Your task to perform on an android device: add a contact Image 0: 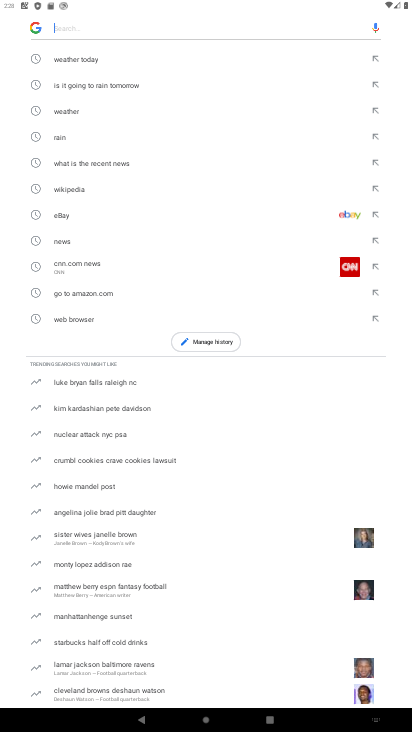
Step 0: press back button
Your task to perform on an android device: add a contact Image 1: 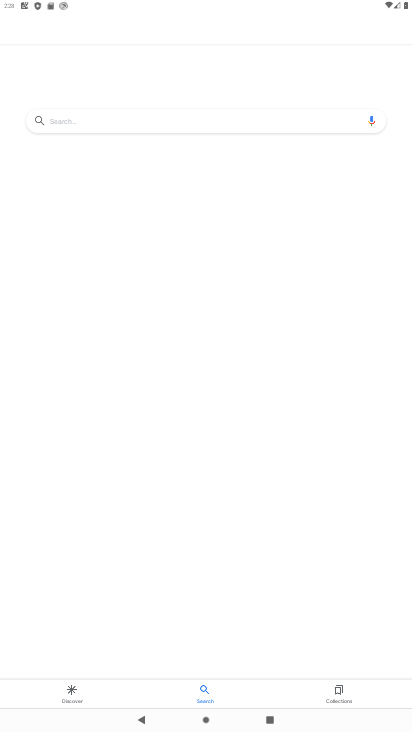
Step 1: press back button
Your task to perform on an android device: add a contact Image 2: 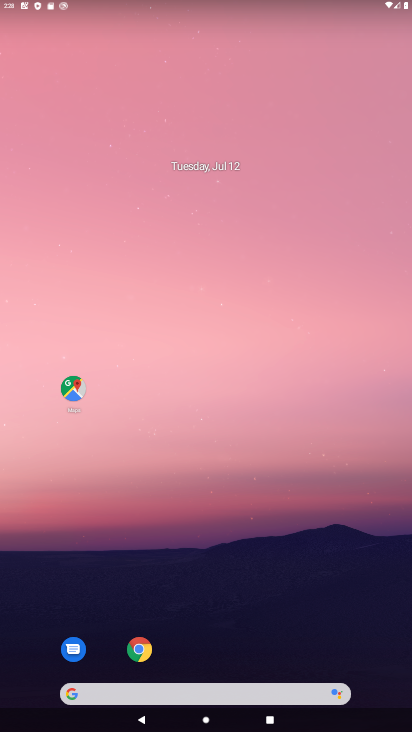
Step 2: drag from (237, 605) to (225, 196)
Your task to perform on an android device: add a contact Image 3: 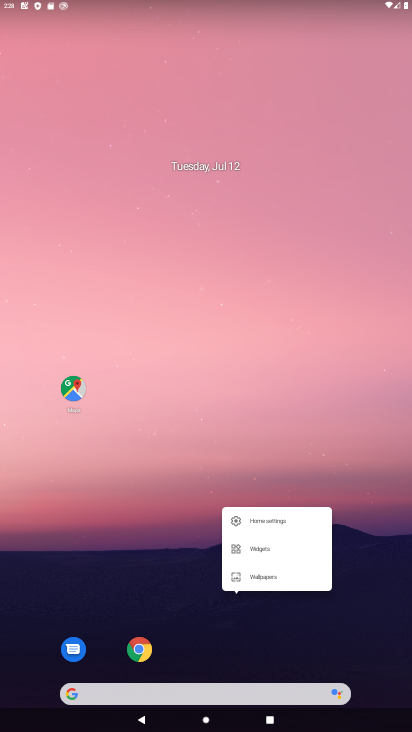
Step 3: click (213, 344)
Your task to perform on an android device: add a contact Image 4: 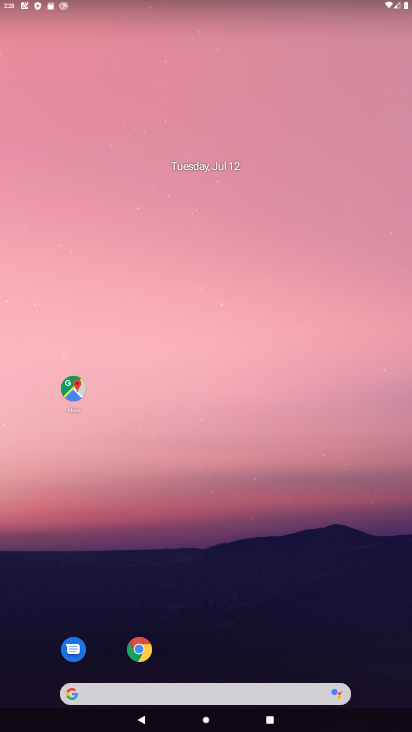
Step 4: drag from (271, 615) to (267, 378)
Your task to perform on an android device: add a contact Image 5: 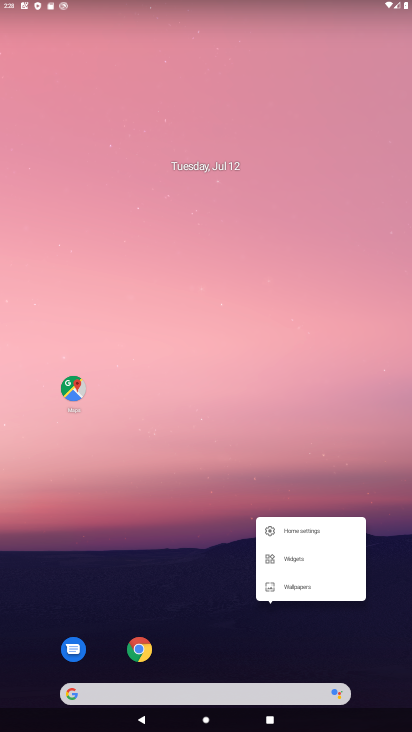
Step 5: click (267, 378)
Your task to perform on an android device: add a contact Image 6: 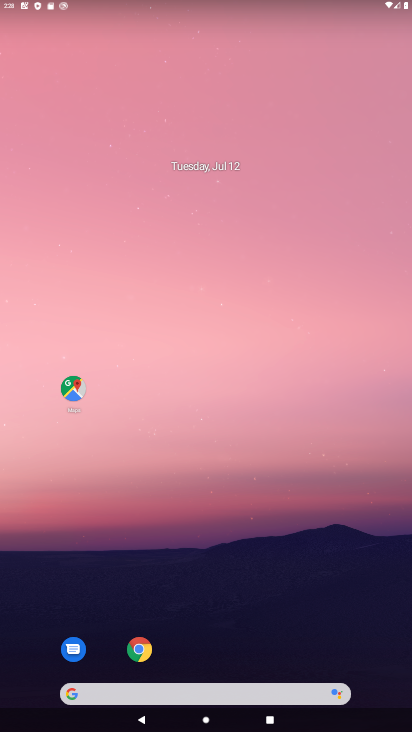
Step 6: drag from (250, 648) to (264, 39)
Your task to perform on an android device: add a contact Image 7: 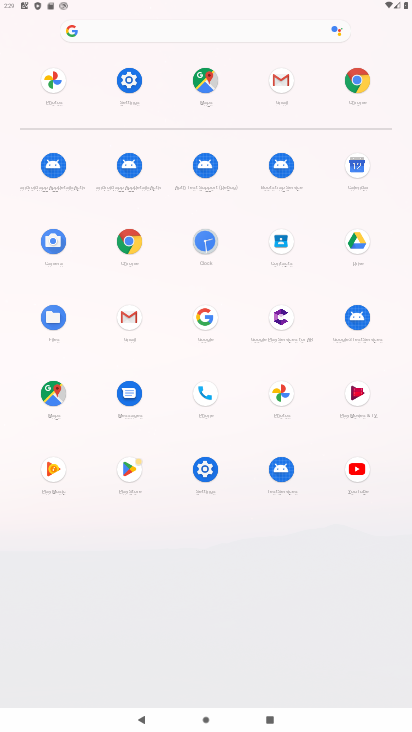
Step 7: click (268, 258)
Your task to perform on an android device: add a contact Image 8: 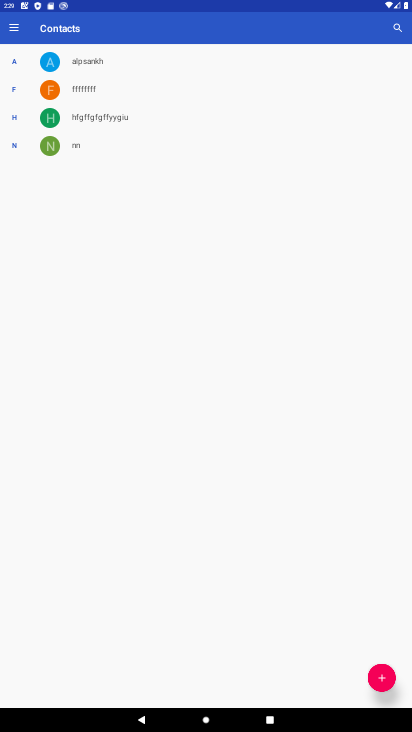
Step 8: click (390, 674)
Your task to perform on an android device: add a contact Image 9: 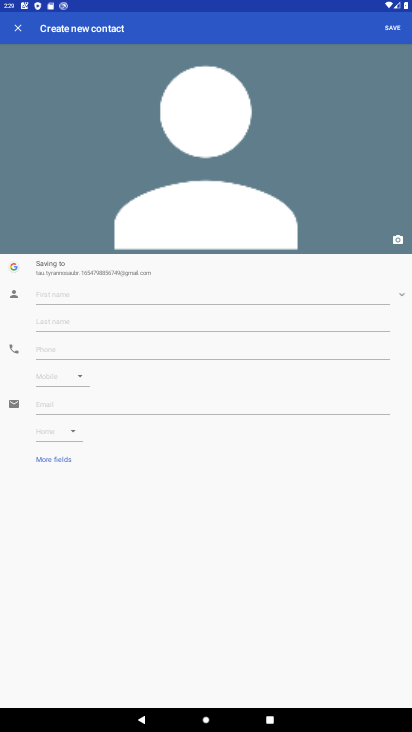
Step 9: click (274, 281)
Your task to perform on an android device: add a contact Image 10: 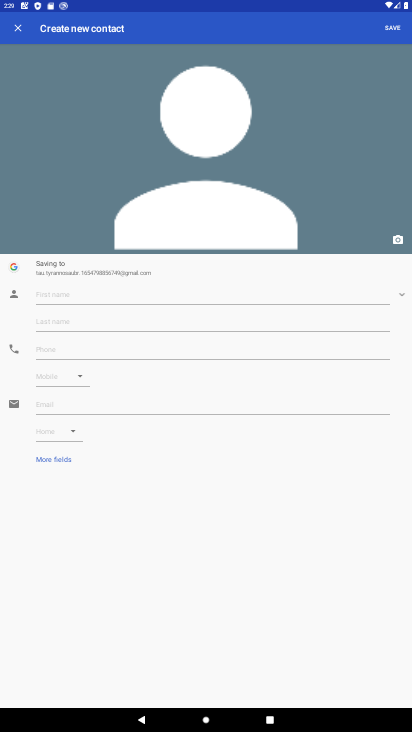
Step 10: type "jbjkvj"
Your task to perform on an android device: add a contact Image 11: 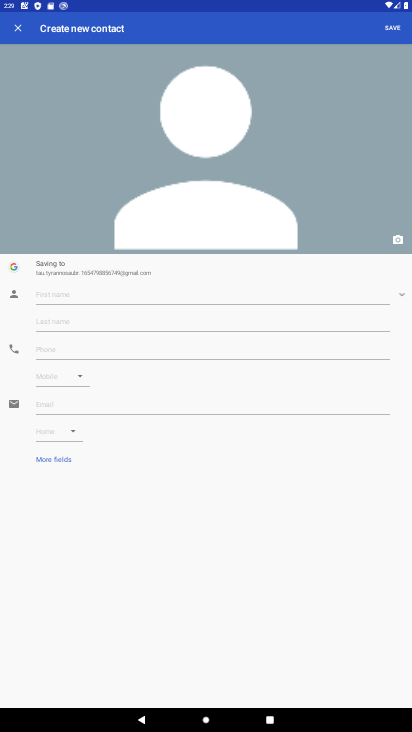
Step 11: click (135, 319)
Your task to perform on an android device: add a contact Image 12: 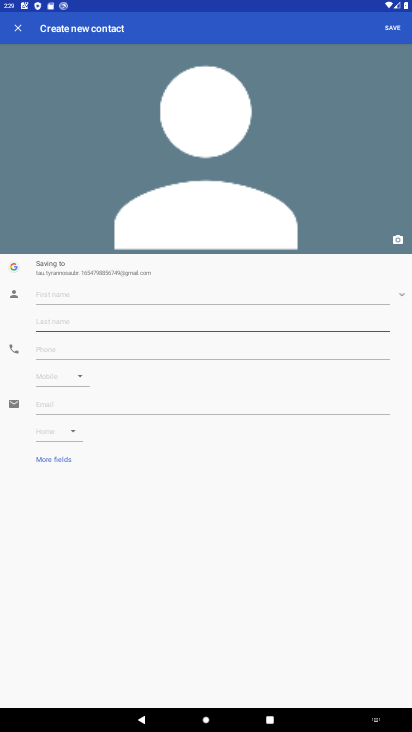
Step 12: type "mnvjvj"
Your task to perform on an android device: add a contact Image 13: 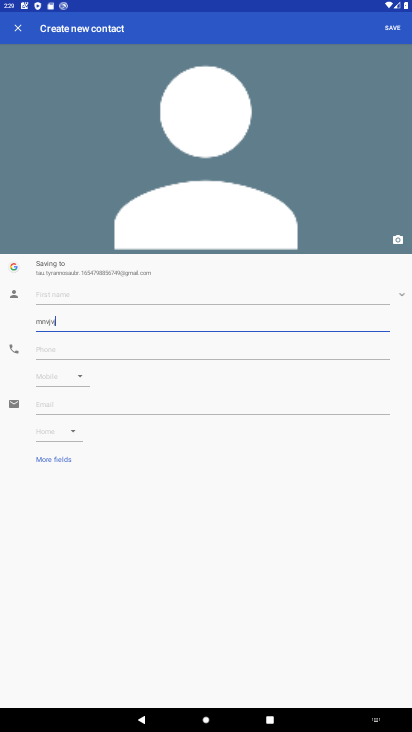
Step 13: click (48, 350)
Your task to perform on an android device: add a contact Image 14: 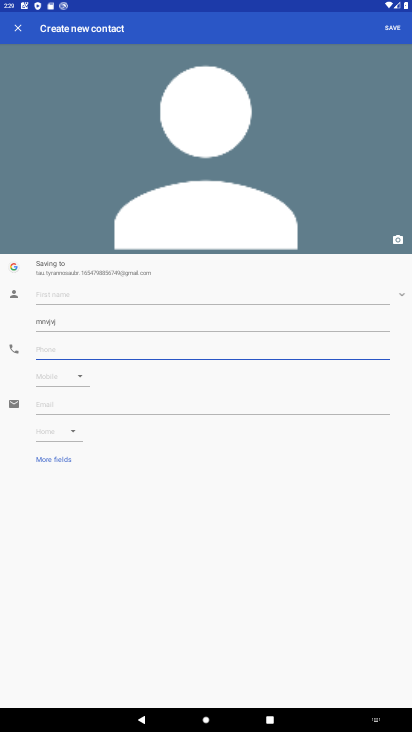
Step 14: type "jgkfvyf"
Your task to perform on an android device: add a contact Image 15: 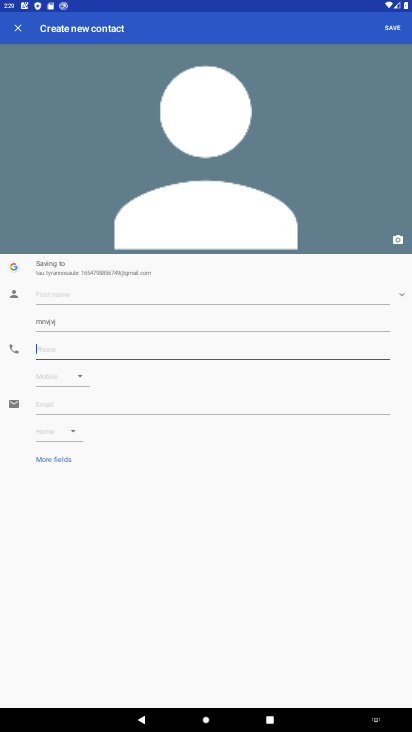
Step 15: click (384, 33)
Your task to perform on an android device: add a contact Image 16: 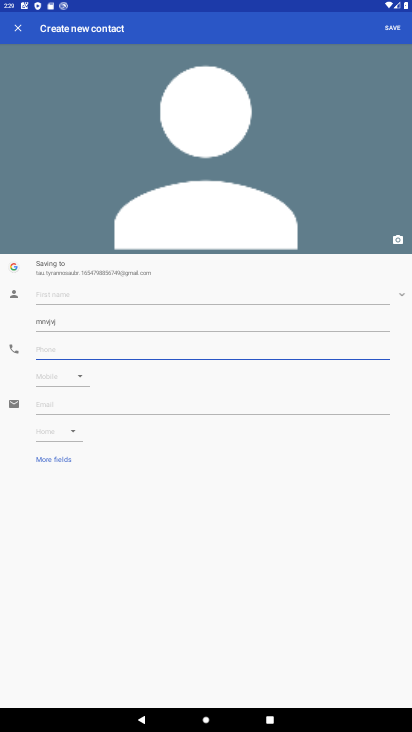
Step 16: task complete